Your task to perform on an android device: Open Chrome and go to the settings page Image 0: 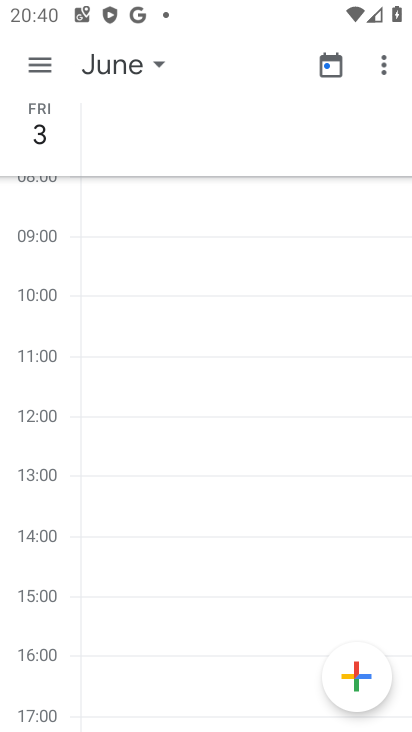
Step 0: press home button
Your task to perform on an android device: Open Chrome and go to the settings page Image 1: 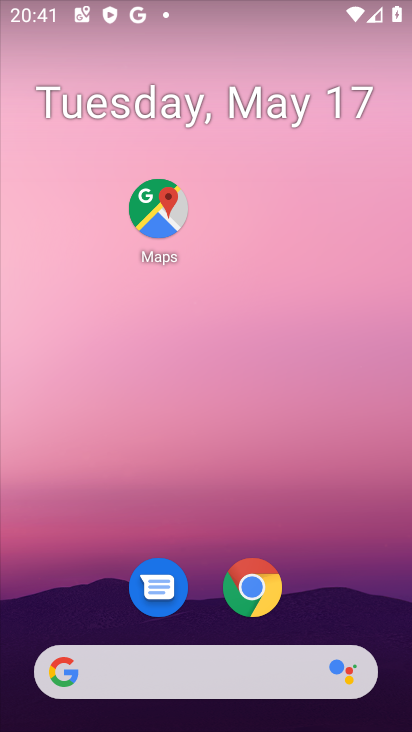
Step 1: click (235, 587)
Your task to perform on an android device: Open Chrome and go to the settings page Image 2: 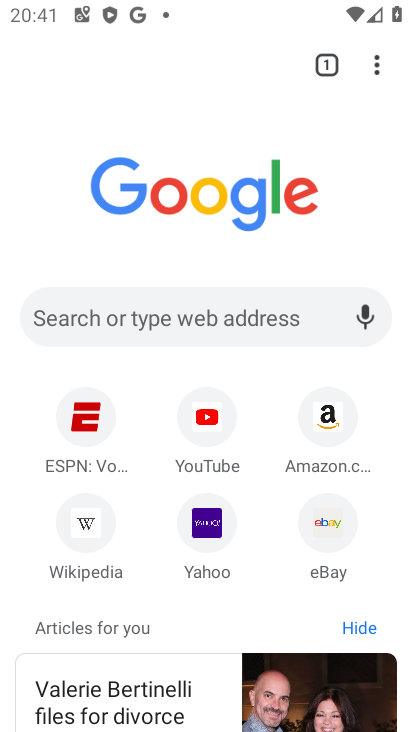
Step 2: click (369, 69)
Your task to perform on an android device: Open Chrome and go to the settings page Image 3: 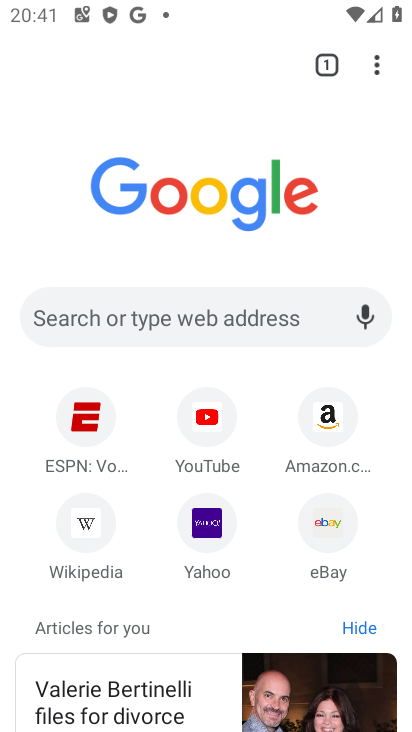
Step 3: click (370, 66)
Your task to perform on an android device: Open Chrome and go to the settings page Image 4: 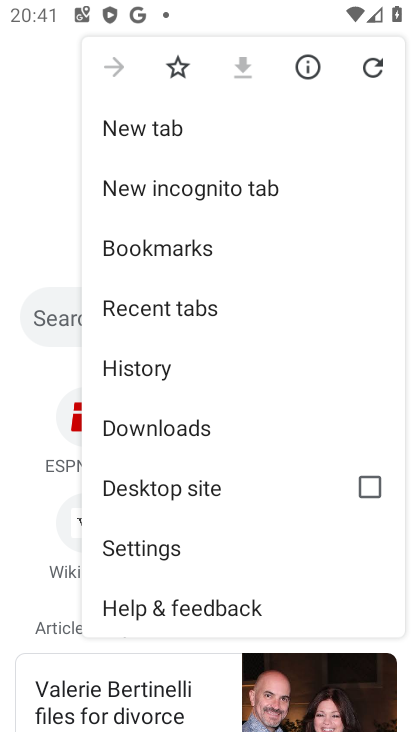
Step 4: click (117, 545)
Your task to perform on an android device: Open Chrome and go to the settings page Image 5: 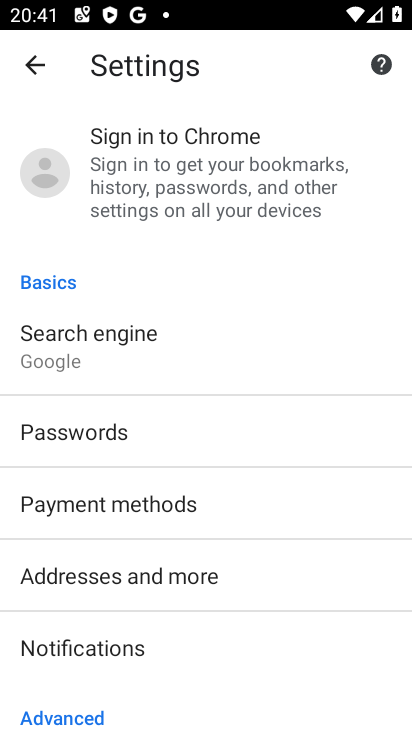
Step 5: task complete